Your task to perform on an android device: Is it going to rain tomorrow? Image 0: 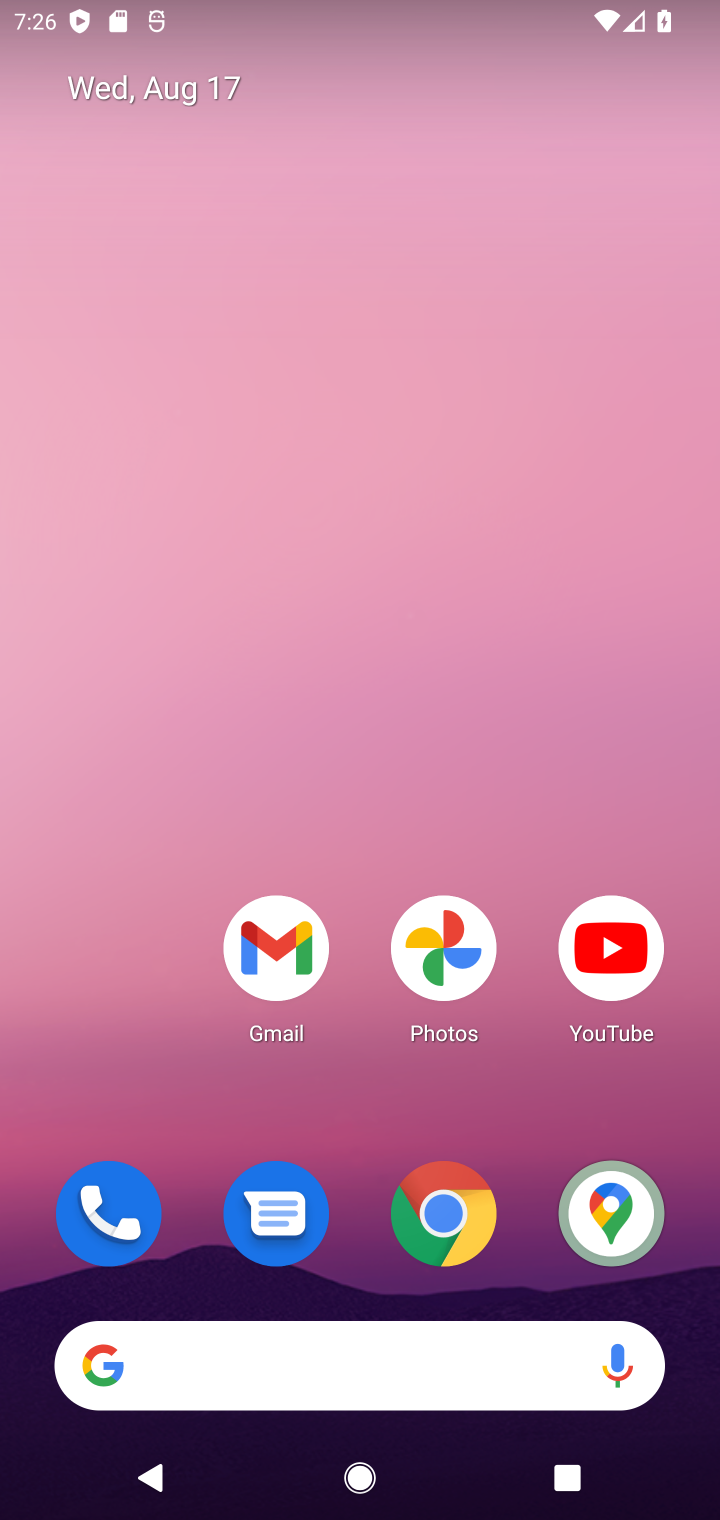
Step 0: click (304, 1370)
Your task to perform on an android device: Is it going to rain tomorrow? Image 1: 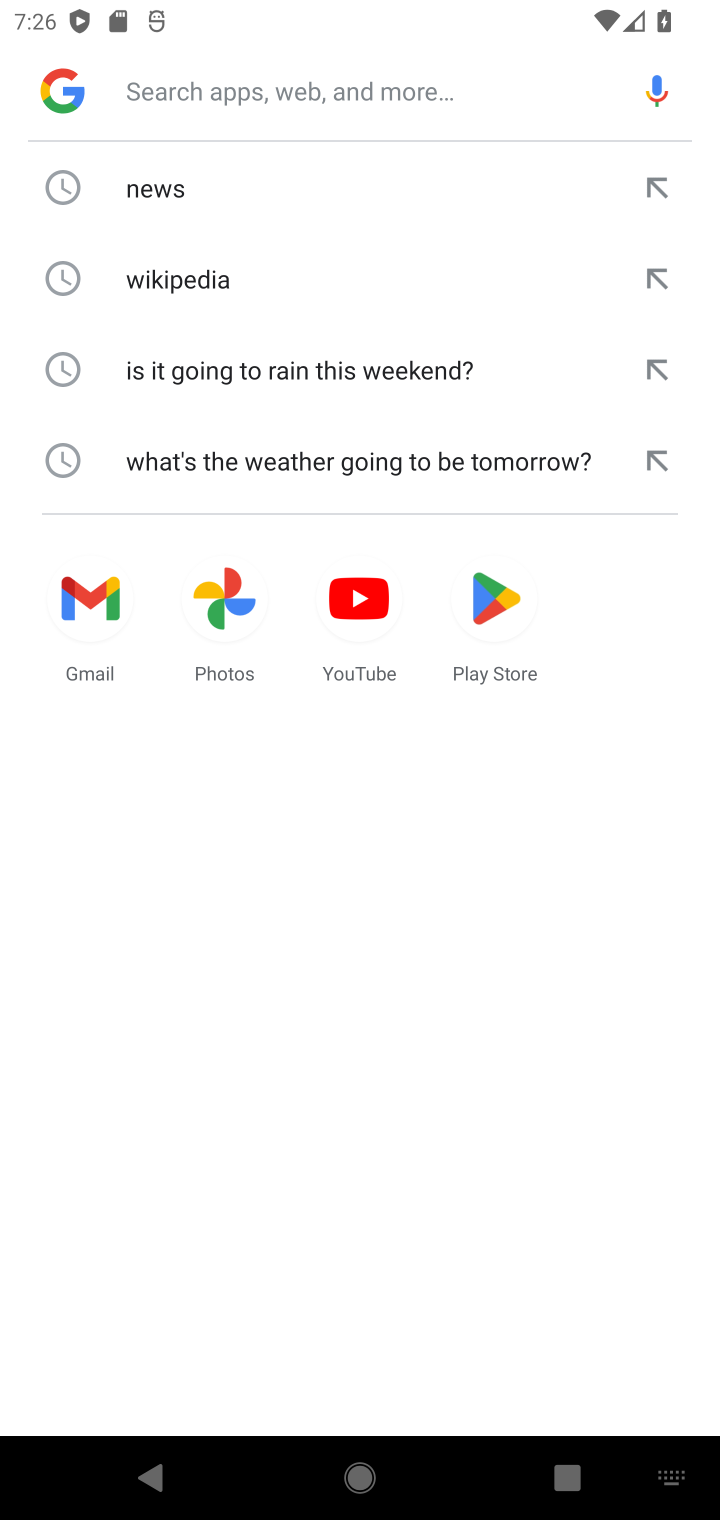
Step 1: type "weather"
Your task to perform on an android device: Is it going to rain tomorrow? Image 2: 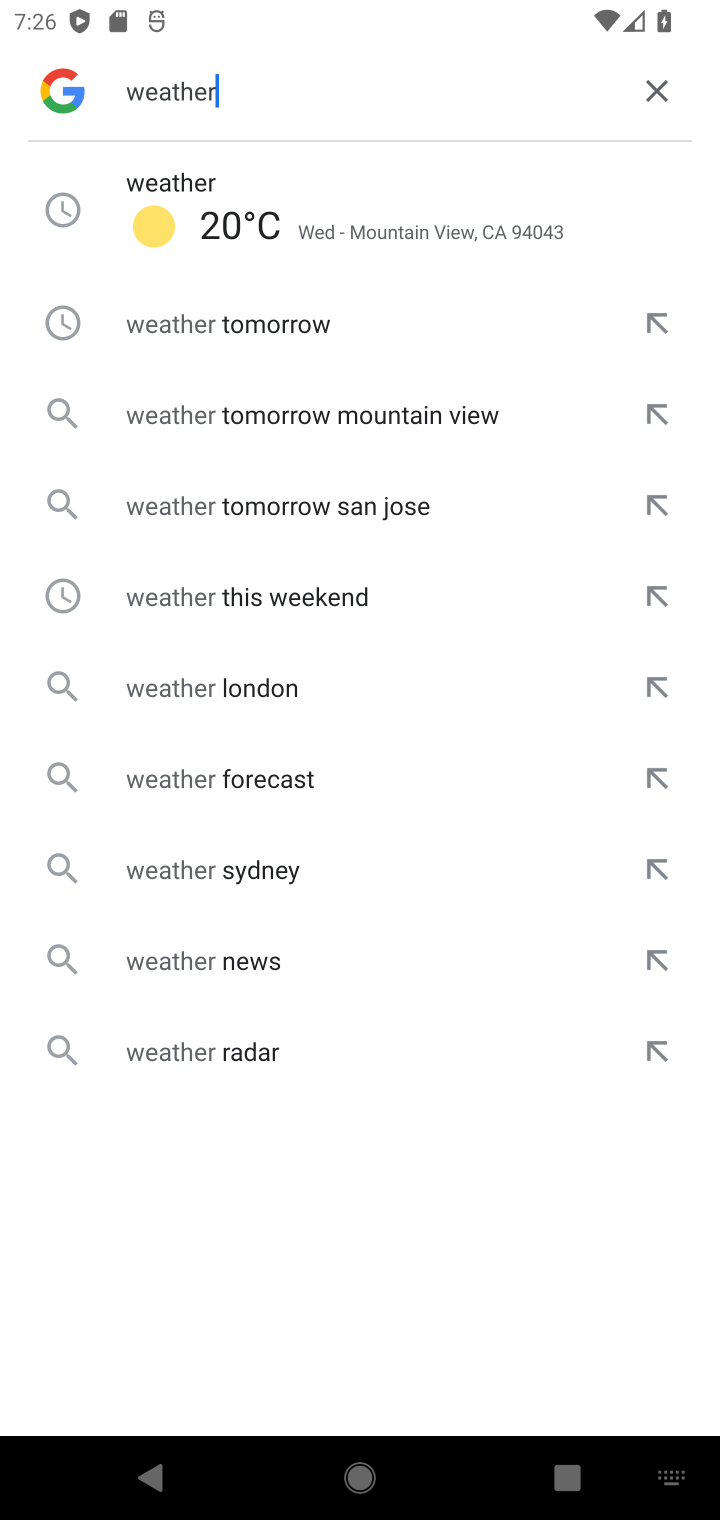
Step 2: click (232, 211)
Your task to perform on an android device: Is it going to rain tomorrow? Image 3: 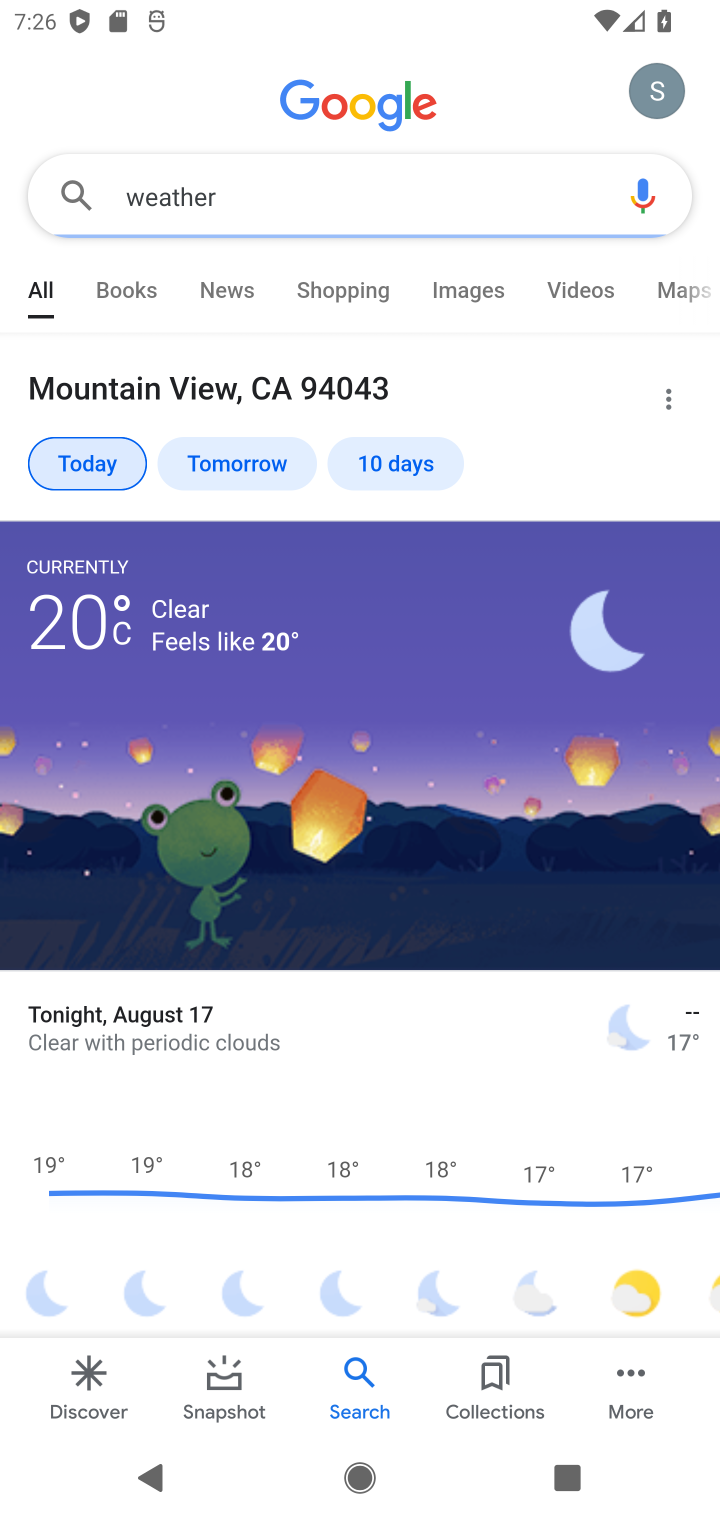
Step 3: click (259, 458)
Your task to perform on an android device: Is it going to rain tomorrow? Image 4: 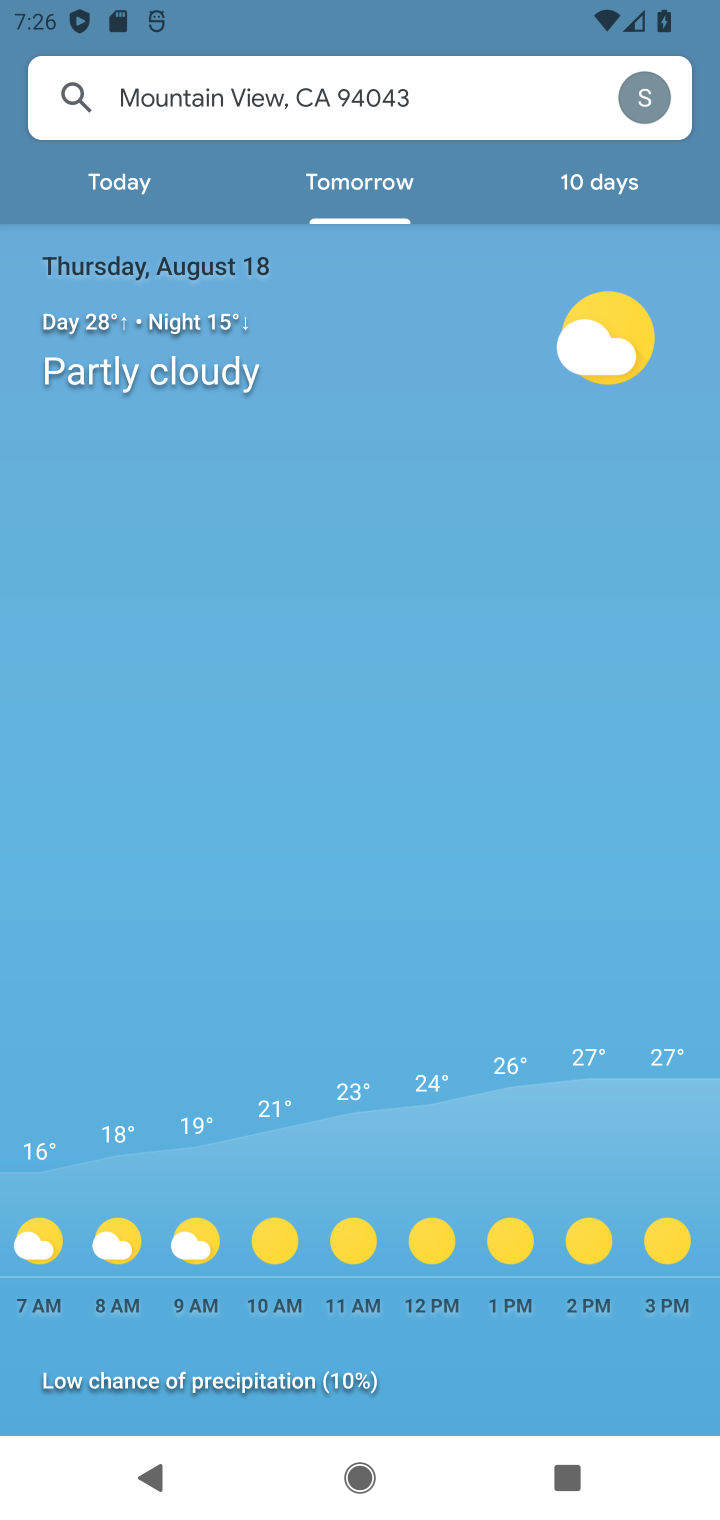
Step 4: task complete